Your task to perform on an android device: set the stopwatch Image 0: 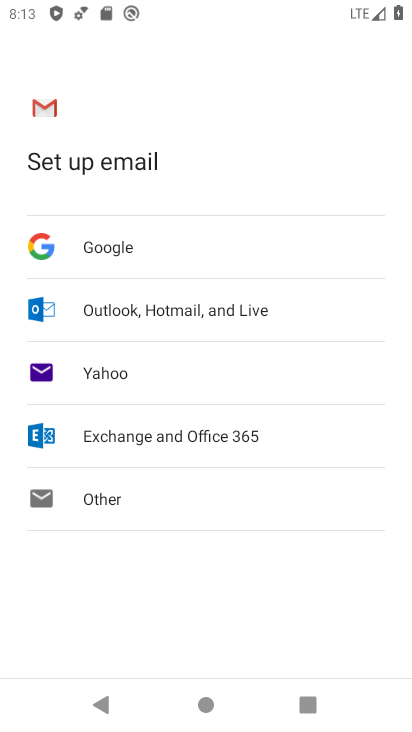
Step 0: press back button
Your task to perform on an android device: set the stopwatch Image 1: 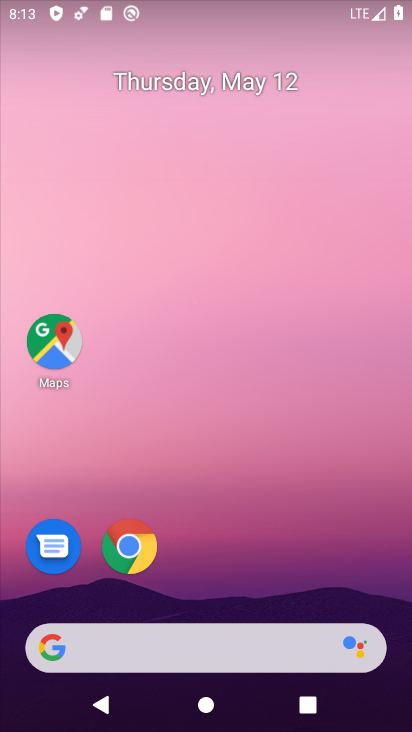
Step 1: drag from (217, 539) to (261, 81)
Your task to perform on an android device: set the stopwatch Image 2: 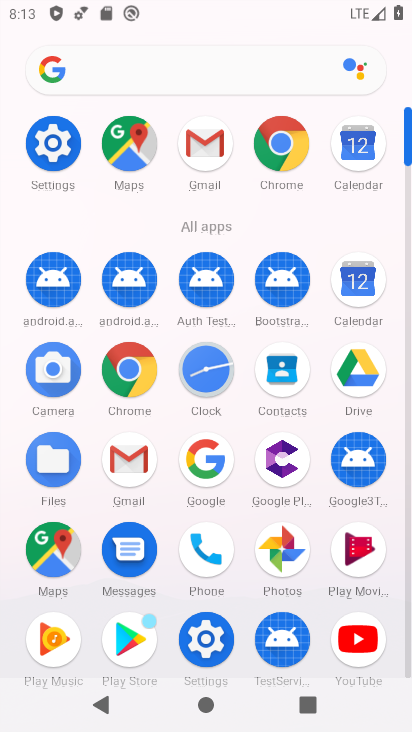
Step 2: click (213, 385)
Your task to perform on an android device: set the stopwatch Image 3: 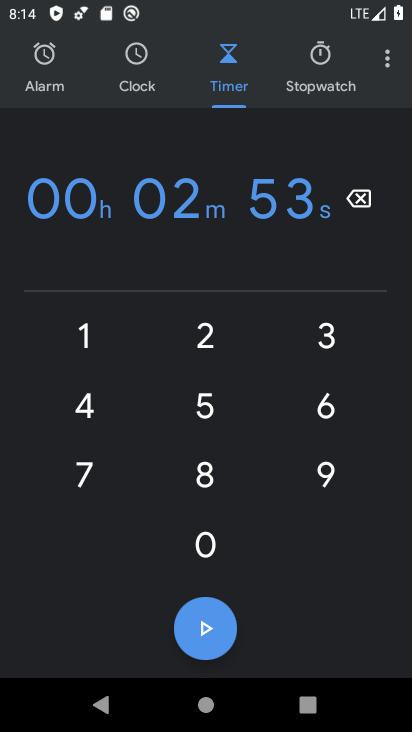
Step 3: click (327, 51)
Your task to perform on an android device: set the stopwatch Image 4: 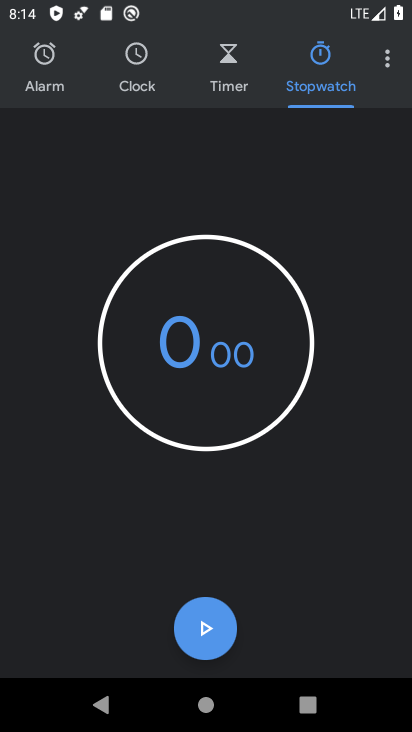
Step 4: task complete